Your task to perform on an android device: Open CNN.com Image 0: 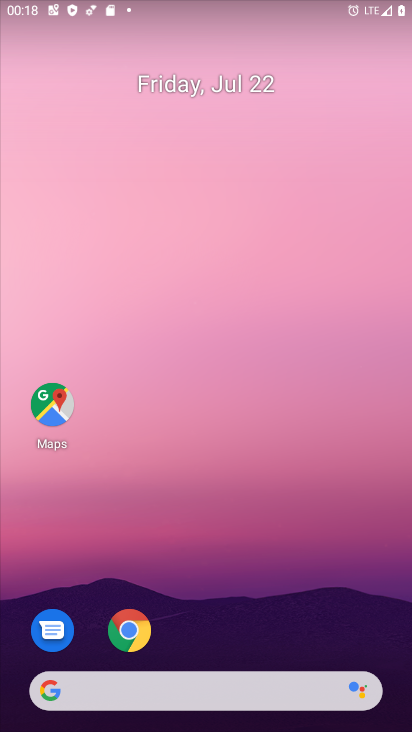
Step 0: click (132, 643)
Your task to perform on an android device: Open CNN.com Image 1: 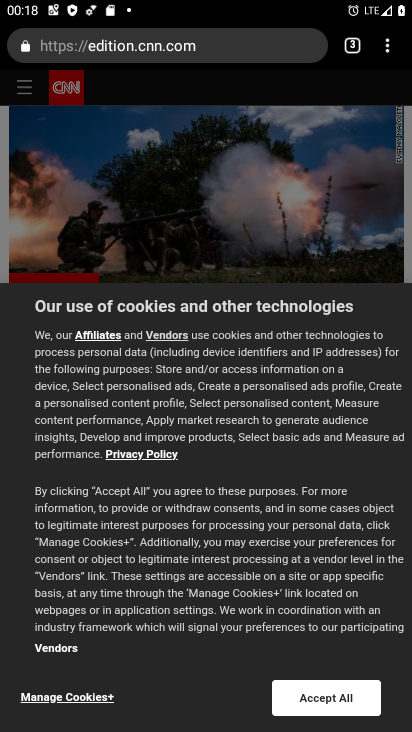
Step 1: click (329, 701)
Your task to perform on an android device: Open CNN.com Image 2: 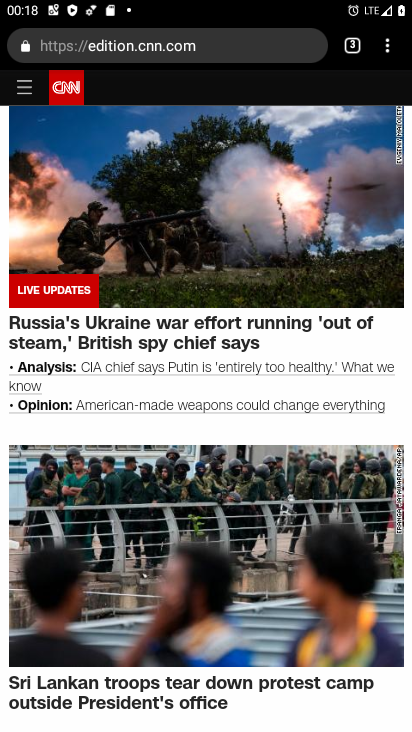
Step 2: task complete